Your task to perform on an android device: turn off javascript in the chrome app Image 0: 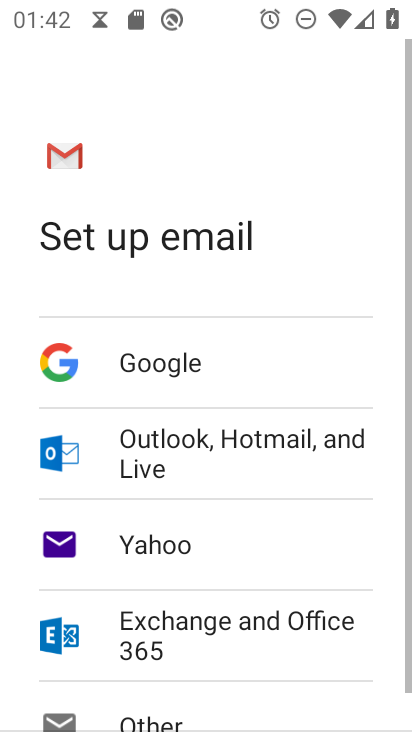
Step 0: press home button
Your task to perform on an android device: turn off javascript in the chrome app Image 1: 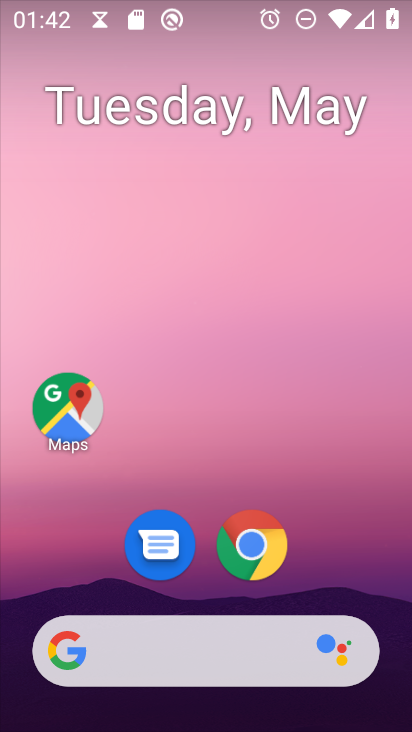
Step 1: click (252, 537)
Your task to perform on an android device: turn off javascript in the chrome app Image 2: 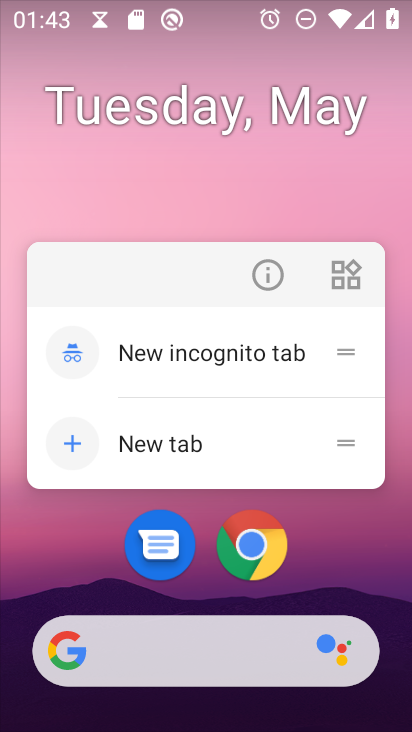
Step 2: click (264, 543)
Your task to perform on an android device: turn off javascript in the chrome app Image 3: 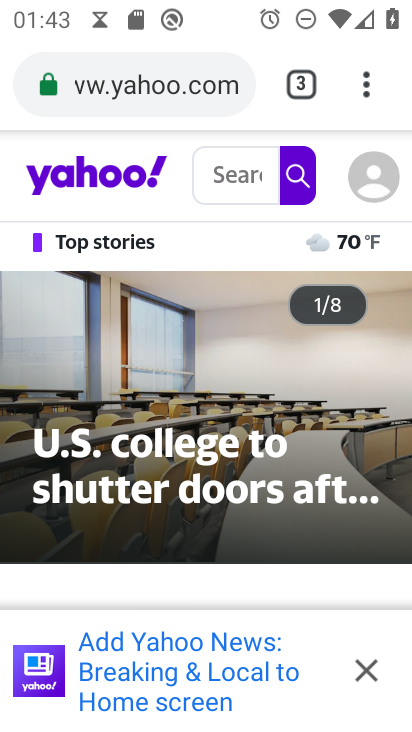
Step 3: click (376, 114)
Your task to perform on an android device: turn off javascript in the chrome app Image 4: 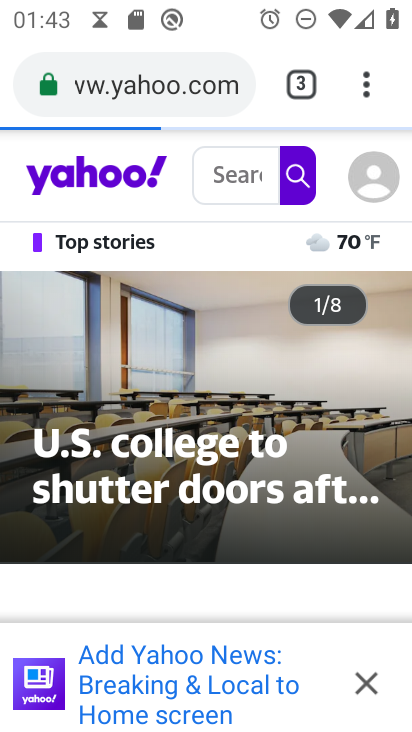
Step 4: click (376, 106)
Your task to perform on an android device: turn off javascript in the chrome app Image 5: 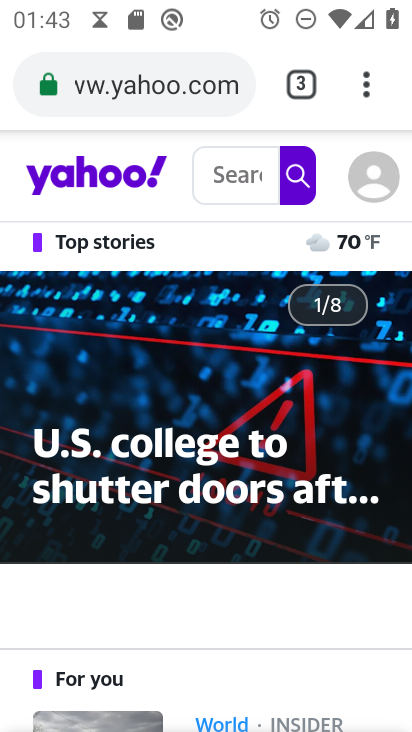
Step 5: click (369, 96)
Your task to perform on an android device: turn off javascript in the chrome app Image 6: 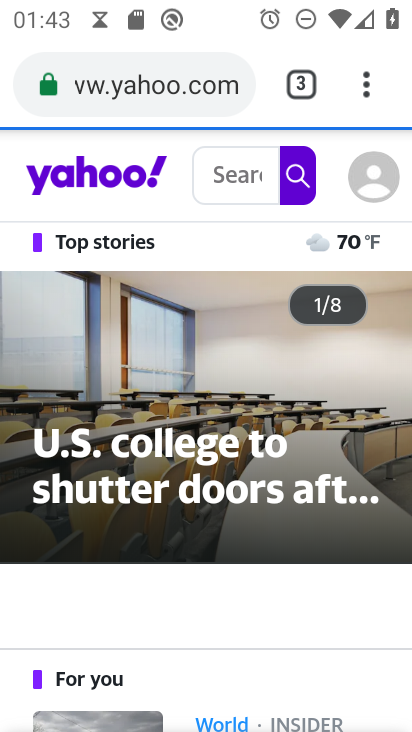
Step 6: click (358, 89)
Your task to perform on an android device: turn off javascript in the chrome app Image 7: 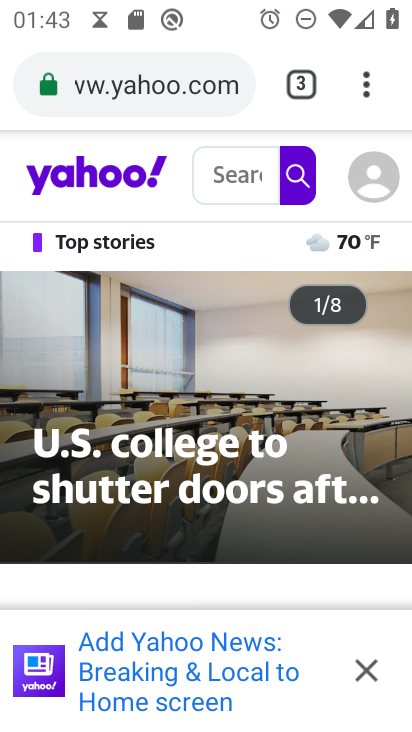
Step 7: click (356, 107)
Your task to perform on an android device: turn off javascript in the chrome app Image 8: 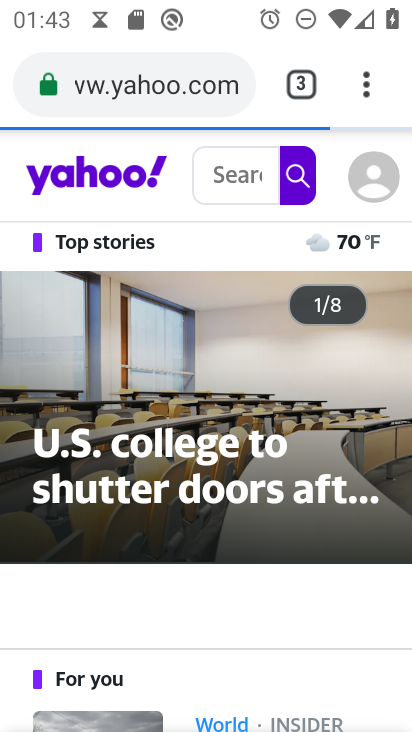
Step 8: click (389, 124)
Your task to perform on an android device: turn off javascript in the chrome app Image 9: 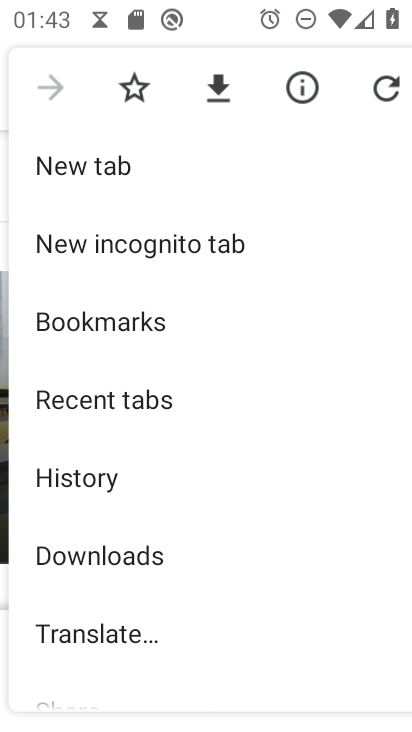
Step 9: drag from (190, 579) to (251, 197)
Your task to perform on an android device: turn off javascript in the chrome app Image 10: 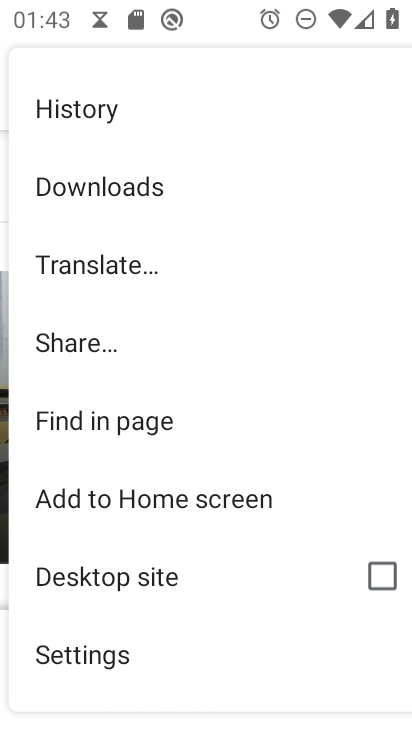
Step 10: click (88, 655)
Your task to perform on an android device: turn off javascript in the chrome app Image 11: 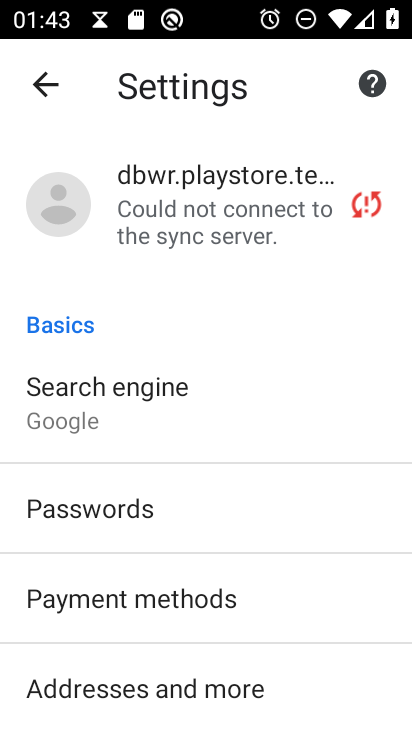
Step 11: drag from (180, 631) to (278, 254)
Your task to perform on an android device: turn off javascript in the chrome app Image 12: 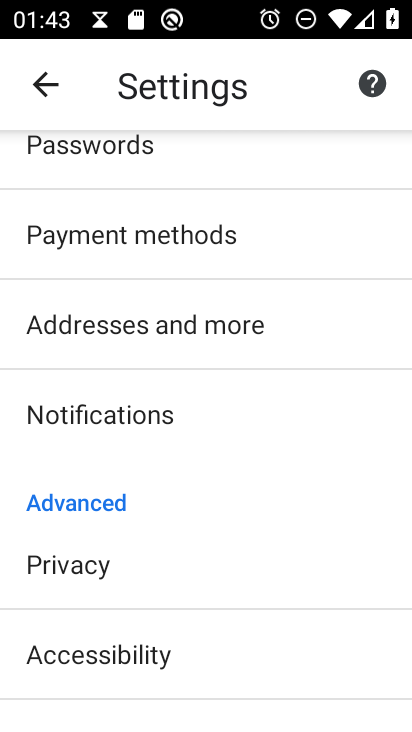
Step 12: drag from (190, 630) to (276, 172)
Your task to perform on an android device: turn off javascript in the chrome app Image 13: 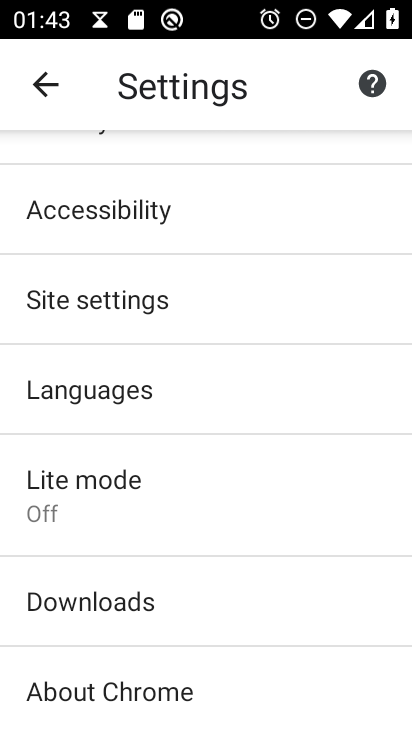
Step 13: click (251, 265)
Your task to perform on an android device: turn off javascript in the chrome app Image 14: 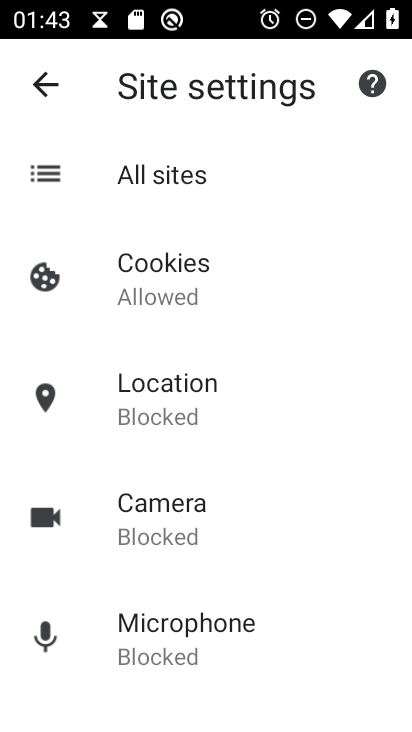
Step 14: drag from (195, 623) to (192, 374)
Your task to perform on an android device: turn off javascript in the chrome app Image 15: 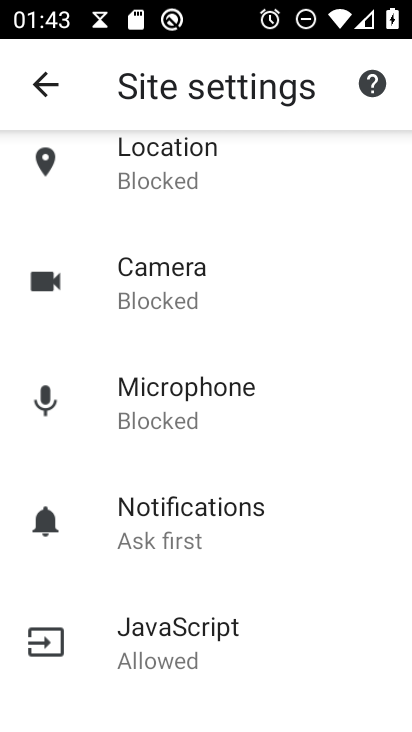
Step 15: click (186, 649)
Your task to perform on an android device: turn off javascript in the chrome app Image 16: 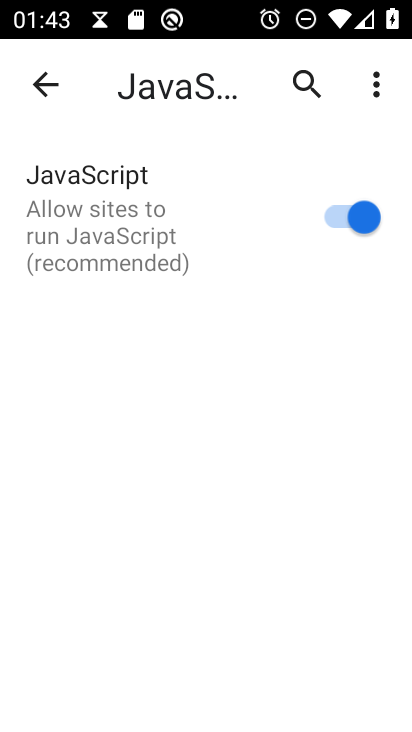
Step 16: click (356, 202)
Your task to perform on an android device: turn off javascript in the chrome app Image 17: 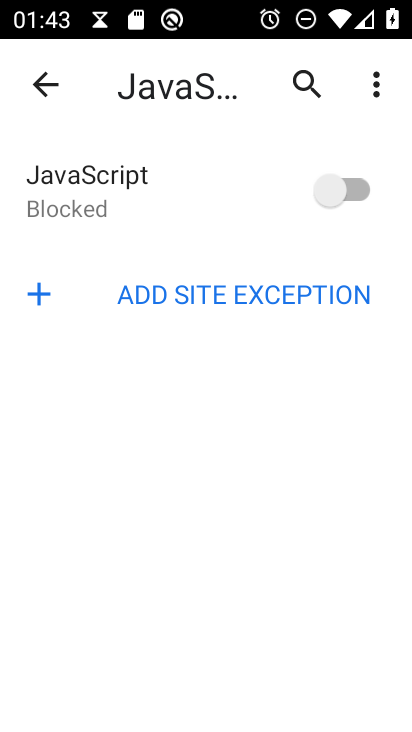
Step 17: task complete